Your task to perform on an android device: Open location settings Image 0: 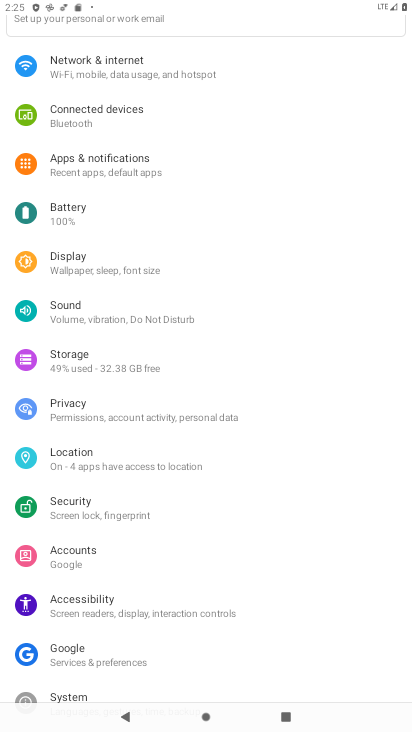
Step 0: click (115, 456)
Your task to perform on an android device: Open location settings Image 1: 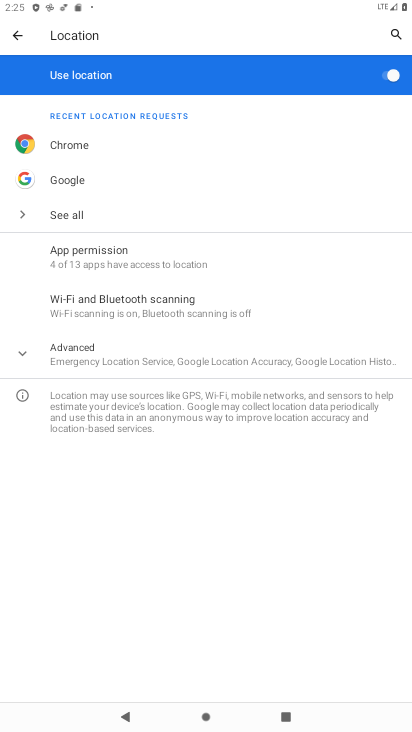
Step 1: click (125, 345)
Your task to perform on an android device: Open location settings Image 2: 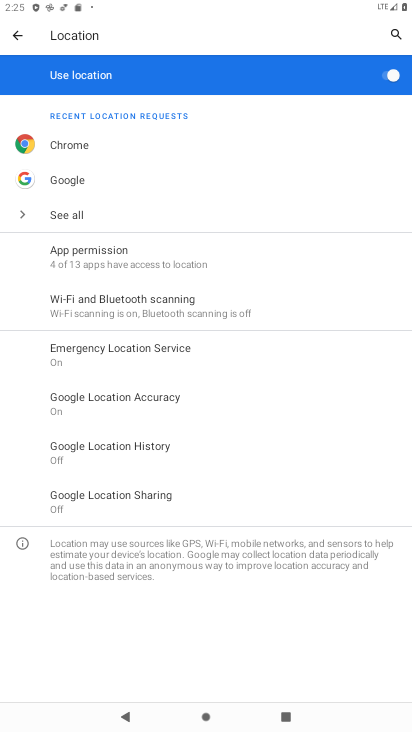
Step 2: task complete